Your task to perform on an android device: Go to privacy settings Image 0: 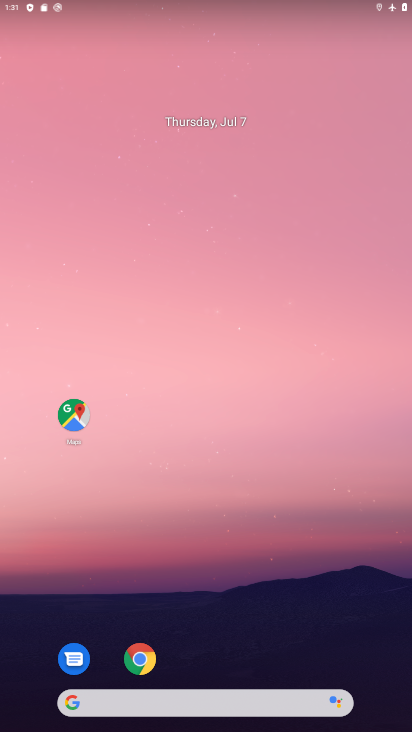
Step 0: click (247, 223)
Your task to perform on an android device: Go to privacy settings Image 1: 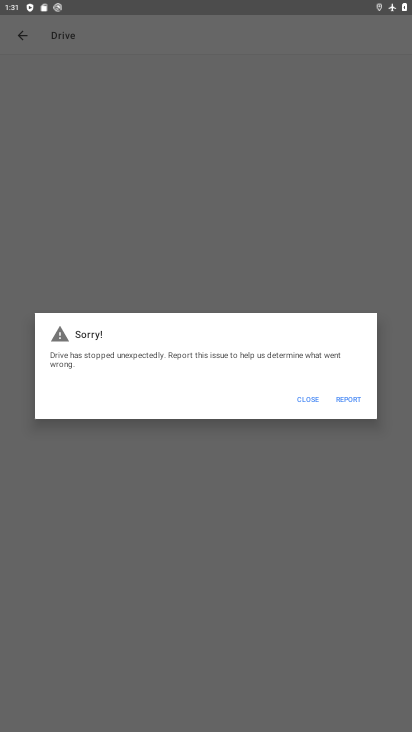
Step 1: press home button
Your task to perform on an android device: Go to privacy settings Image 2: 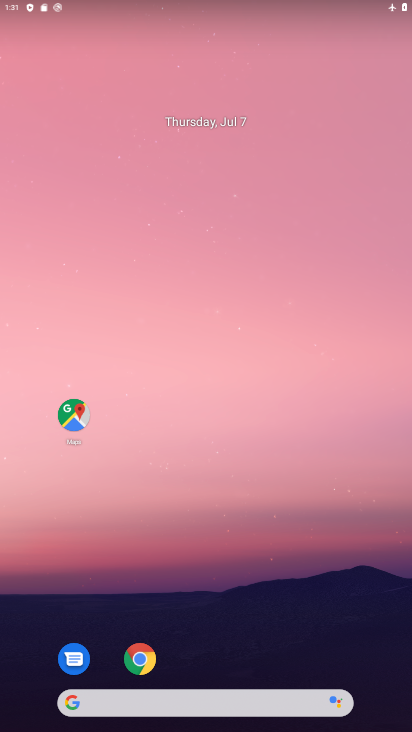
Step 2: drag from (235, 575) to (270, 93)
Your task to perform on an android device: Go to privacy settings Image 3: 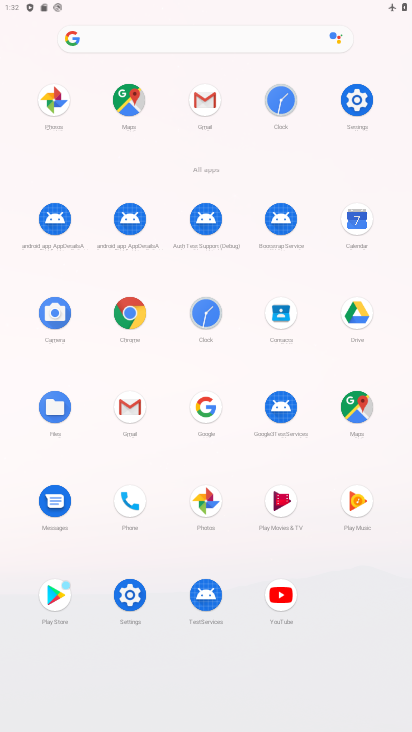
Step 3: click (357, 120)
Your task to perform on an android device: Go to privacy settings Image 4: 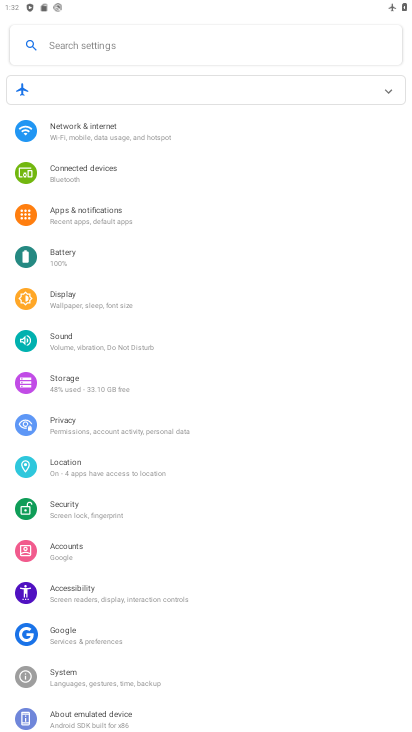
Step 4: click (105, 431)
Your task to perform on an android device: Go to privacy settings Image 5: 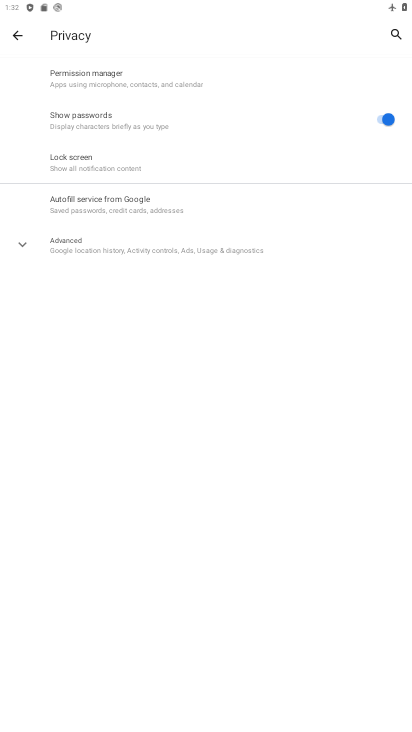
Step 5: click (105, 430)
Your task to perform on an android device: Go to privacy settings Image 6: 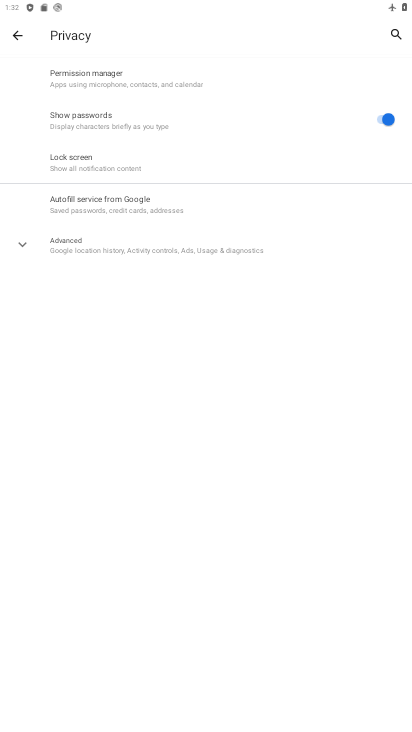
Step 6: task complete